Your task to perform on an android device: turn off javascript in the chrome app Image 0: 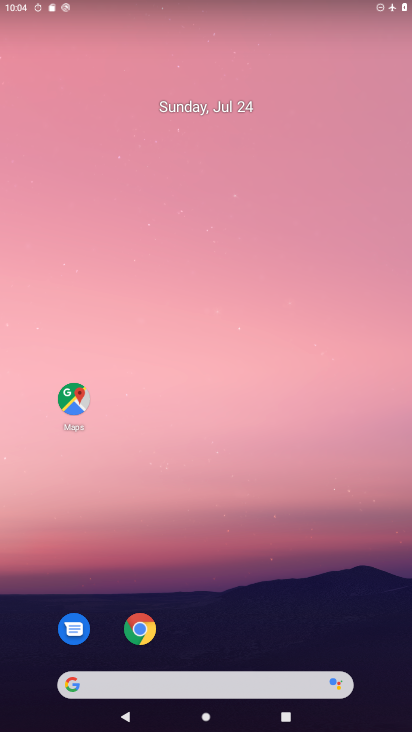
Step 0: drag from (287, 613) to (307, 226)
Your task to perform on an android device: turn off javascript in the chrome app Image 1: 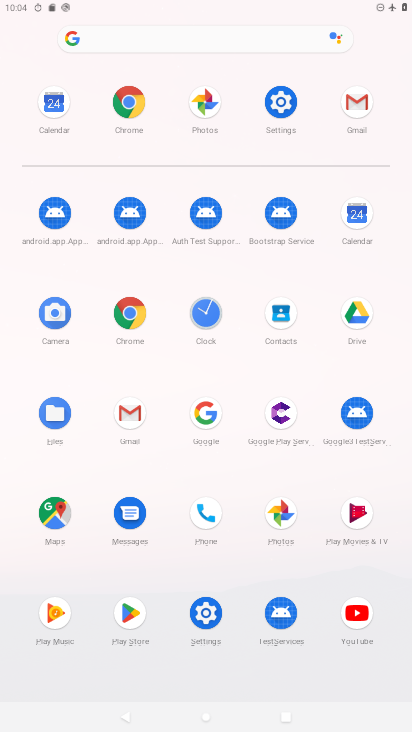
Step 1: click (141, 127)
Your task to perform on an android device: turn off javascript in the chrome app Image 2: 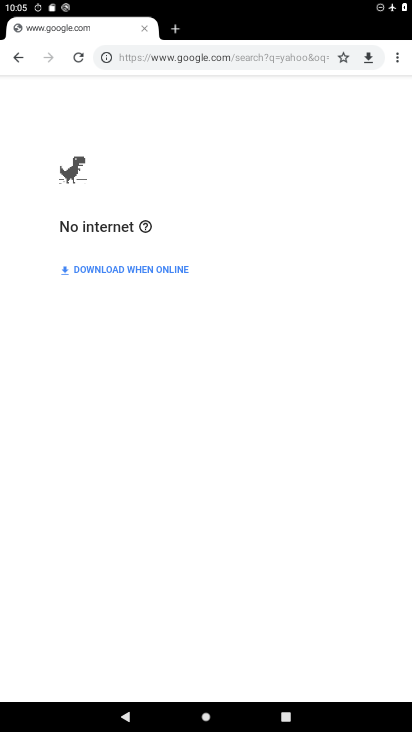
Step 2: click (395, 59)
Your task to perform on an android device: turn off javascript in the chrome app Image 3: 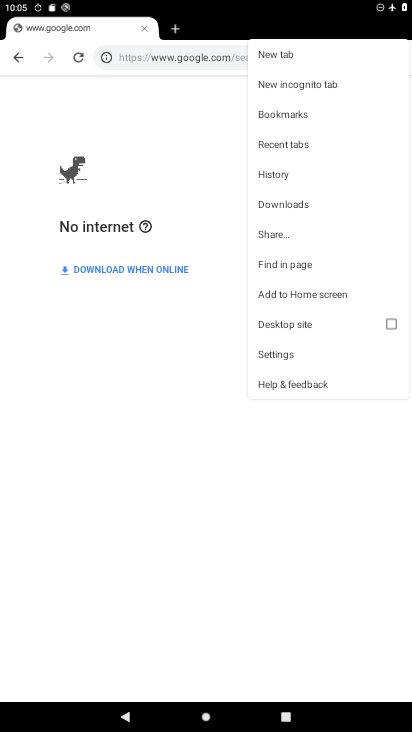
Step 3: click (286, 358)
Your task to perform on an android device: turn off javascript in the chrome app Image 4: 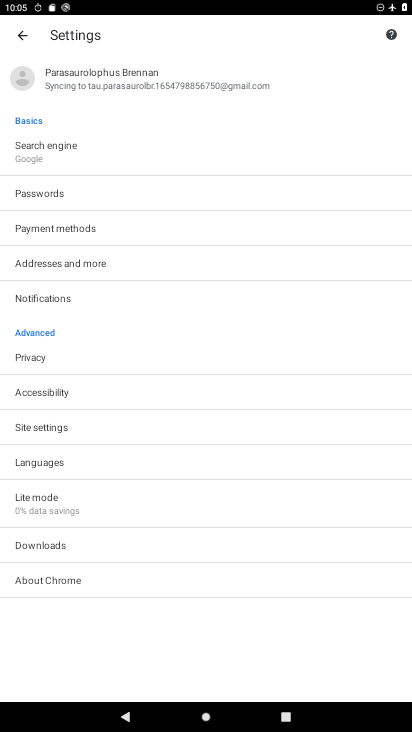
Step 4: click (121, 434)
Your task to perform on an android device: turn off javascript in the chrome app Image 5: 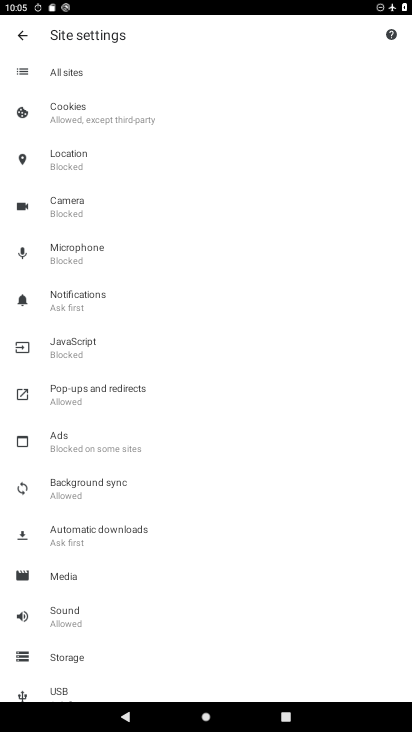
Step 5: click (91, 346)
Your task to perform on an android device: turn off javascript in the chrome app Image 6: 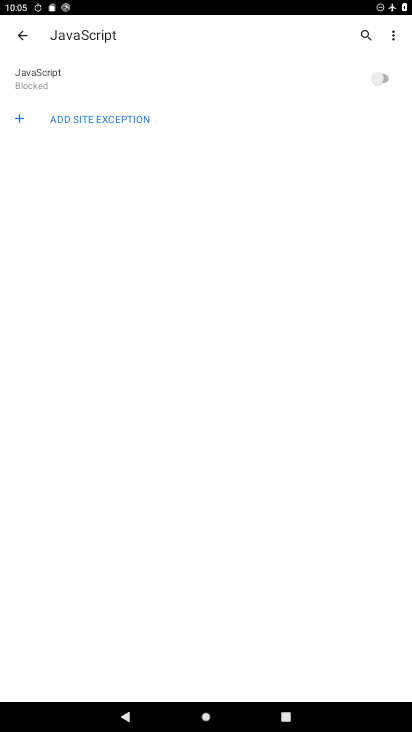
Step 6: task complete